Your task to perform on an android device: visit the assistant section in the google photos Image 0: 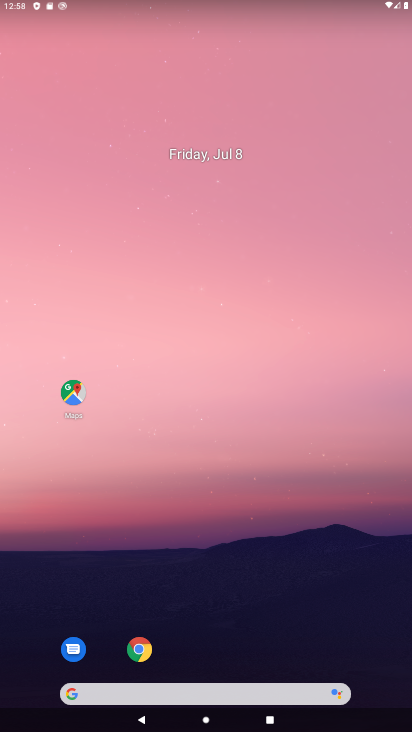
Step 0: drag from (30, 696) to (224, 0)
Your task to perform on an android device: visit the assistant section in the google photos Image 1: 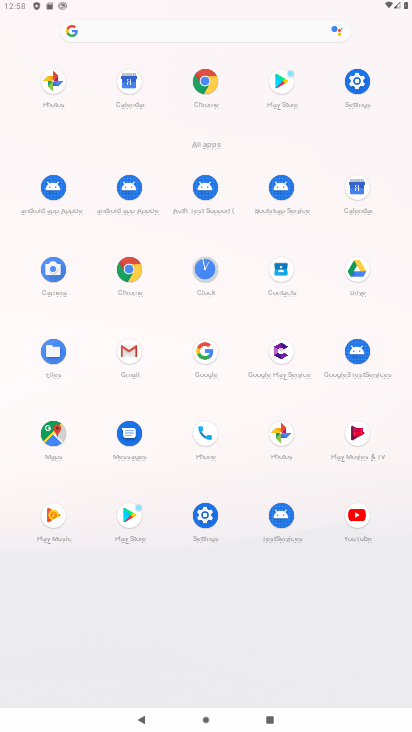
Step 1: click (284, 428)
Your task to perform on an android device: visit the assistant section in the google photos Image 2: 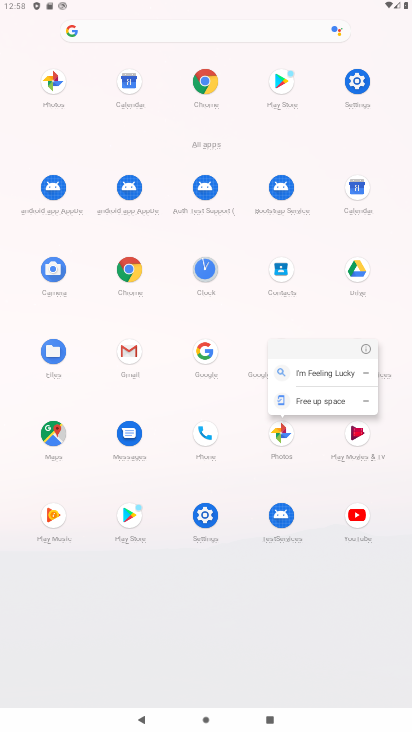
Step 2: click (269, 433)
Your task to perform on an android device: visit the assistant section in the google photos Image 3: 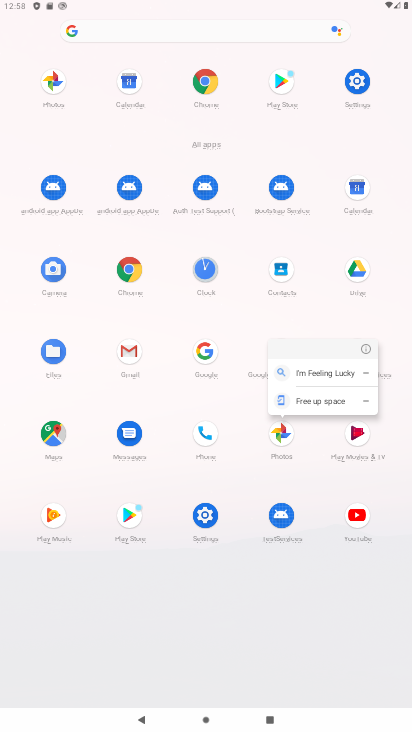
Step 3: click (284, 432)
Your task to perform on an android device: visit the assistant section in the google photos Image 4: 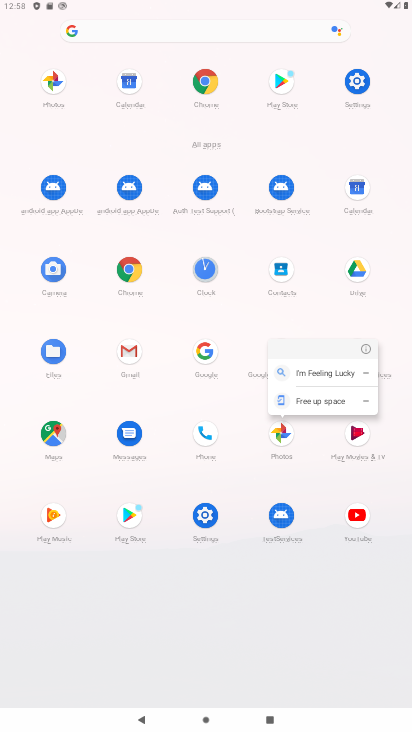
Step 4: click (279, 434)
Your task to perform on an android device: visit the assistant section in the google photos Image 5: 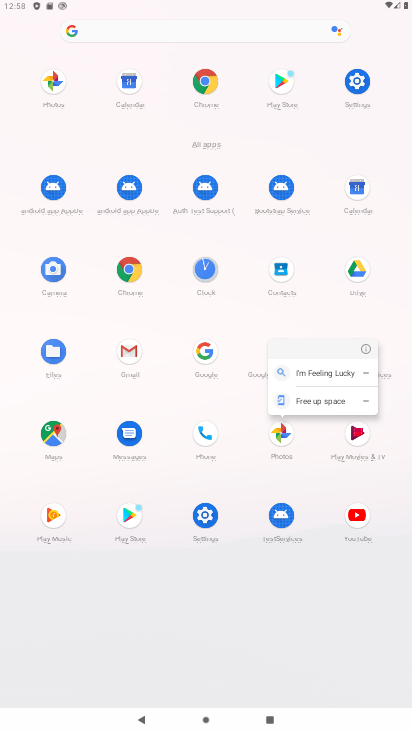
Step 5: click (280, 437)
Your task to perform on an android device: visit the assistant section in the google photos Image 6: 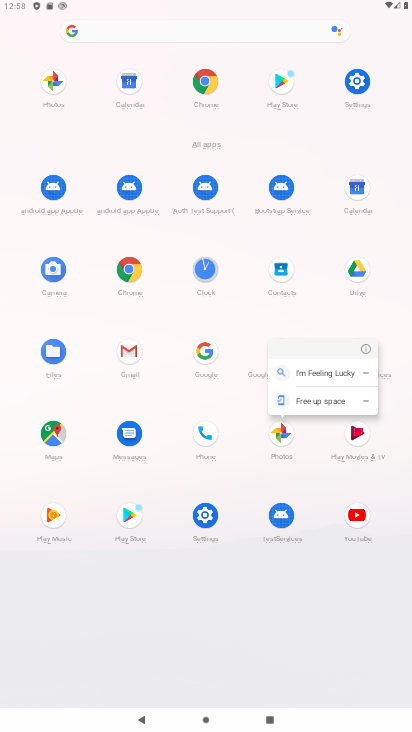
Step 6: click (280, 437)
Your task to perform on an android device: visit the assistant section in the google photos Image 7: 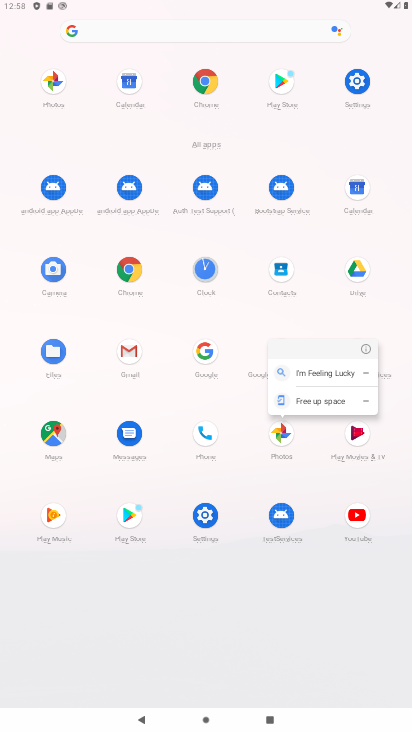
Step 7: task complete